Your task to perform on an android device: uninstall "Chime – Mobile Banking" Image 0: 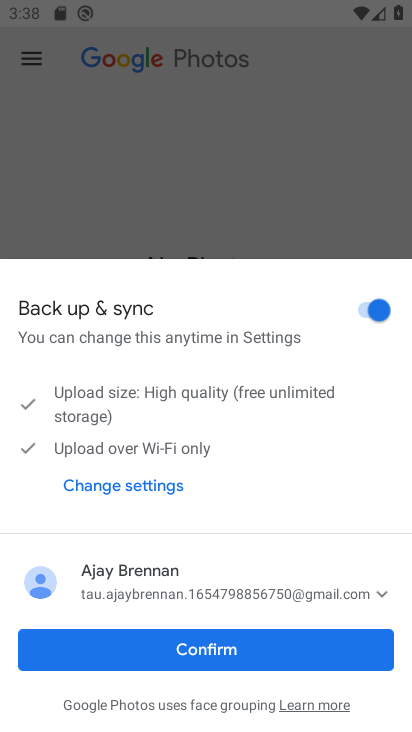
Step 0: press home button
Your task to perform on an android device: uninstall "Chime – Mobile Banking" Image 1: 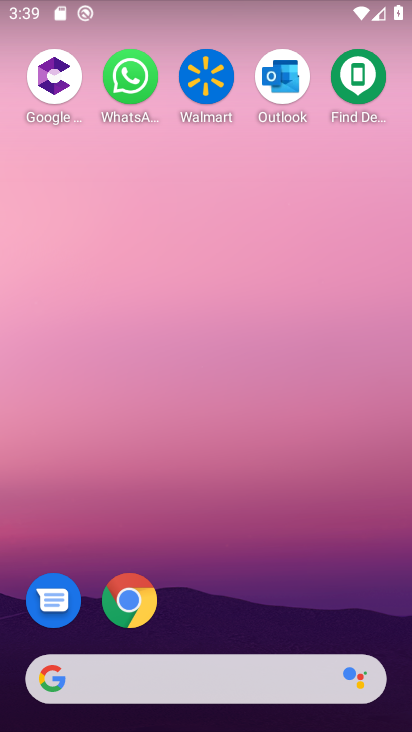
Step 1: drag from (267, 586) to (266, 104)
Your task to perform on an android device: uninstall "Chime – Mobile Banking" Image 2: 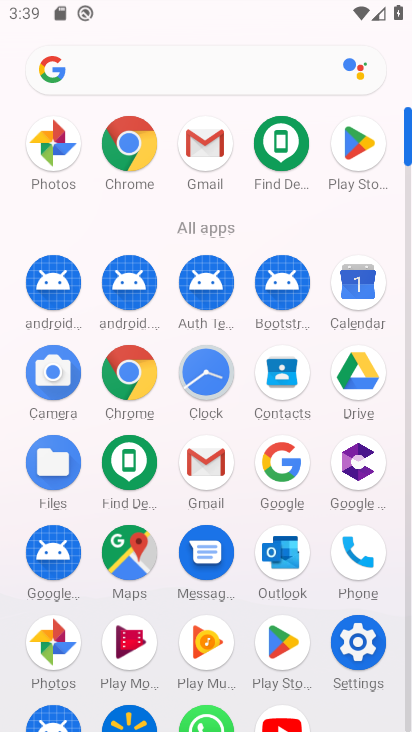
Step 2: click (358, 149)
Your task to perform on an android device: uninstall "Chime – Mobile Banking" Image 3: 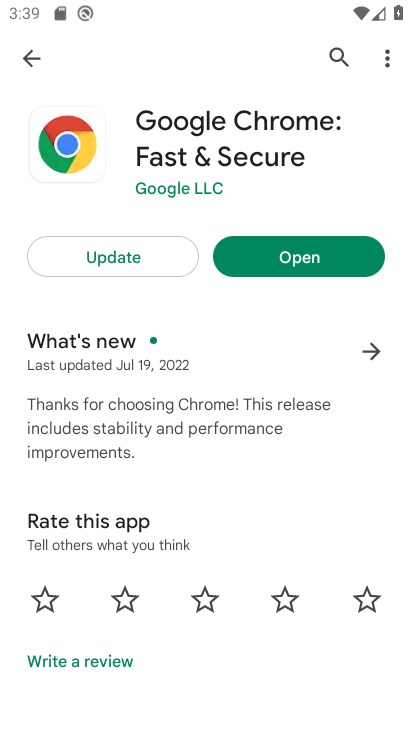
Step 3: click (330, 53)
Your task to perform on an android device: uninstall "Chime – Mobile Banking" Image 4: 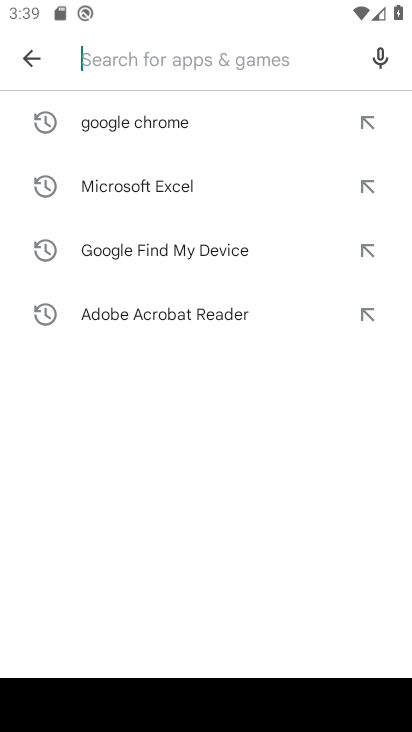
Step 4: type "Chime - Mobile Banking"
Your task to perform on an android device: uninstall "Chime – Mobile Banking" Image 5: 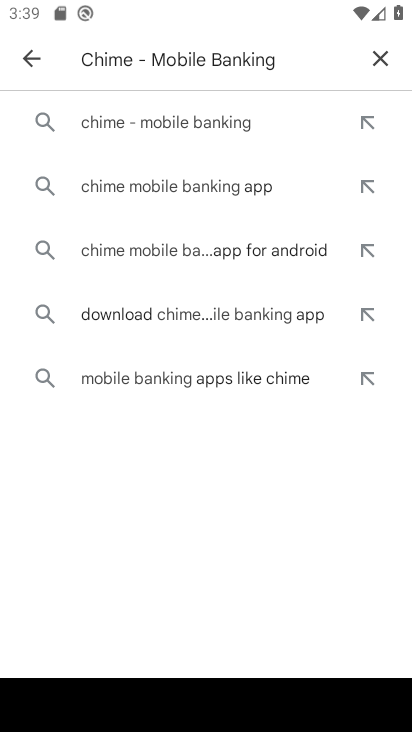
Step 5: press enter
Your task to perform on an android device: uninstall "Chime – Mobile Banking" Image 6: 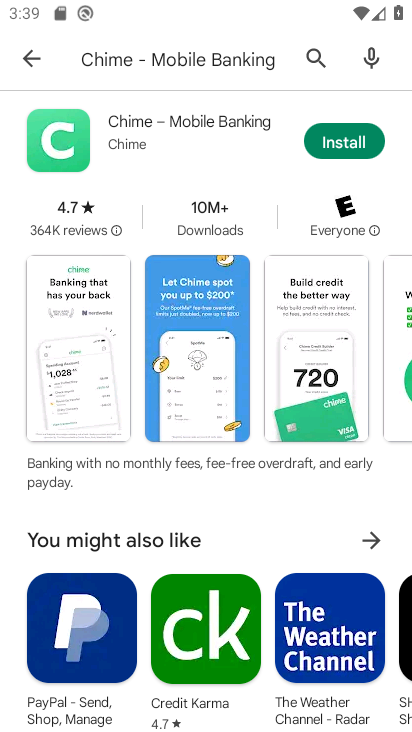
Step 6: task complete